Your task to perform on an android device: open sync settings in chrome Image 0: 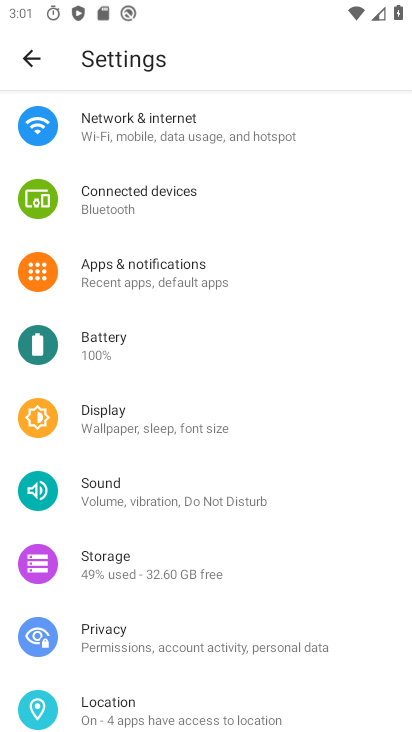
Step 0: press back button
Your task to perform on an android device: open sync settings in chrome Image 1: 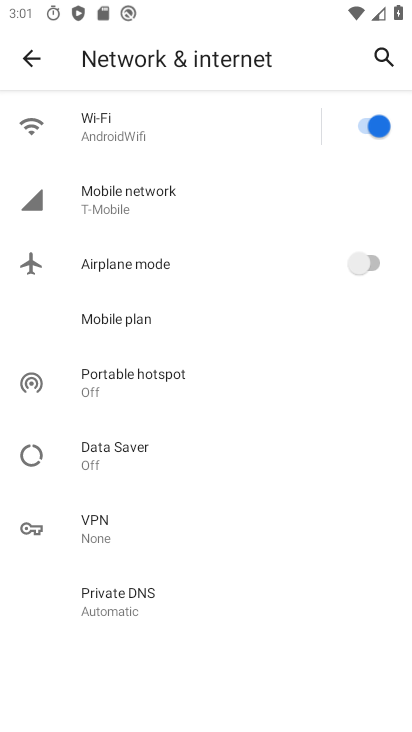
Step 1: press back button
Your task to perform on an android device: open sync settings in chrome Image 2: 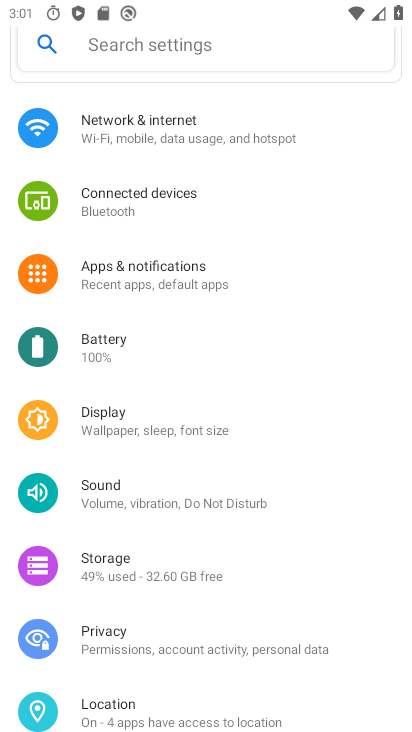
Step 2: press back button
Your task to perform on an android device: open sync settings in chrome Image 3: 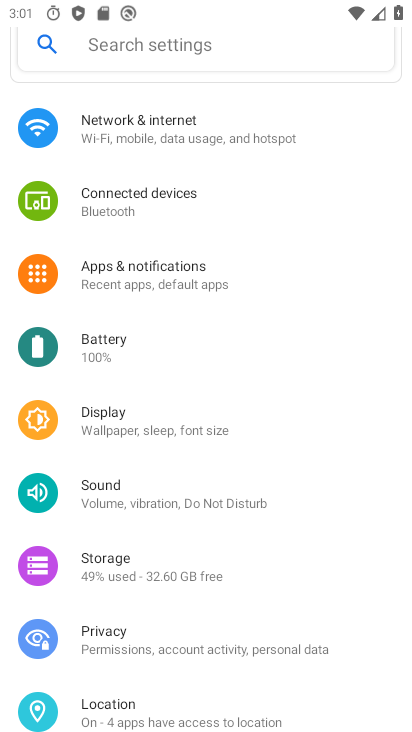
Step 3: press home button
Your task to perform on an android device: open sync settings in chrome Image 4: 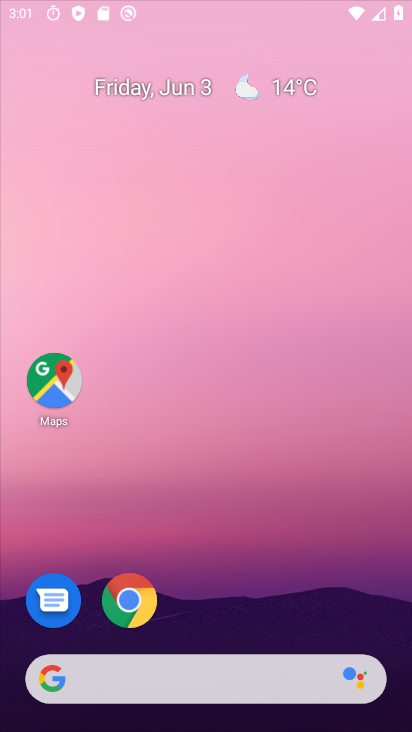
Step 4: press back button
Your task to perform on an android device: open sync settings in chrome Image 5: 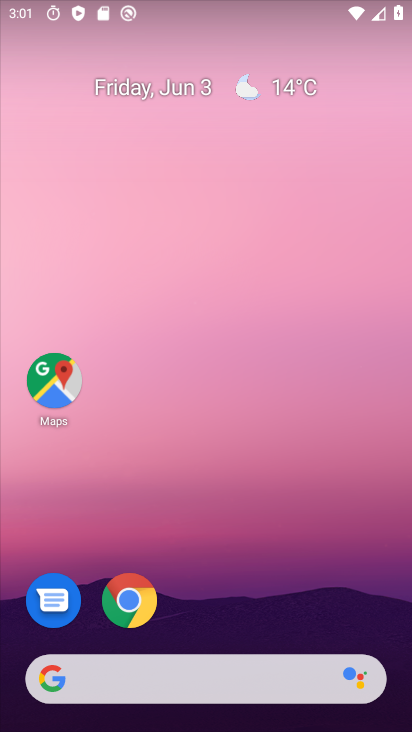
Step 5: press home button
Your task to perform on an android device: open sync settings in chrome Image 6: 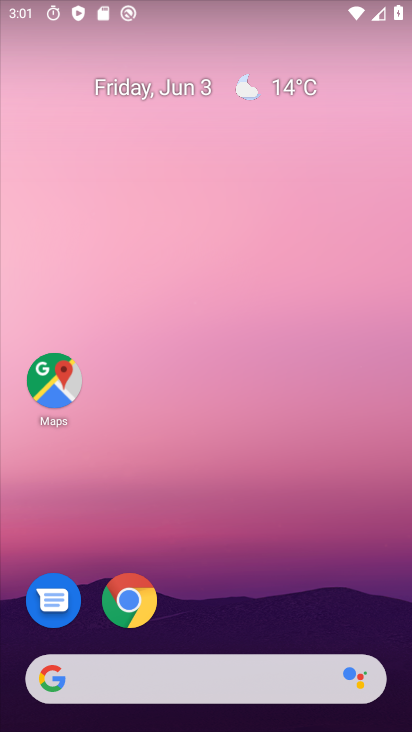
Step 6: drag from (276, 591) to (218, 2)
Your task to perform on an android device: open sync settings in chrome Image 7: 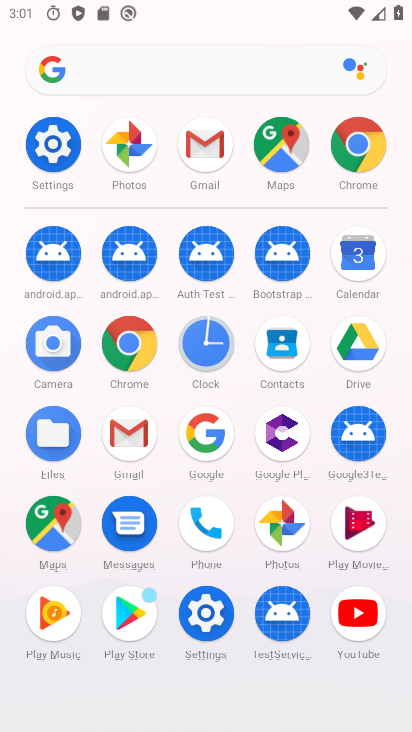
Step 7: click (130, 341)
Your task to perform on an android device: open sync settings in chrome Image 8: 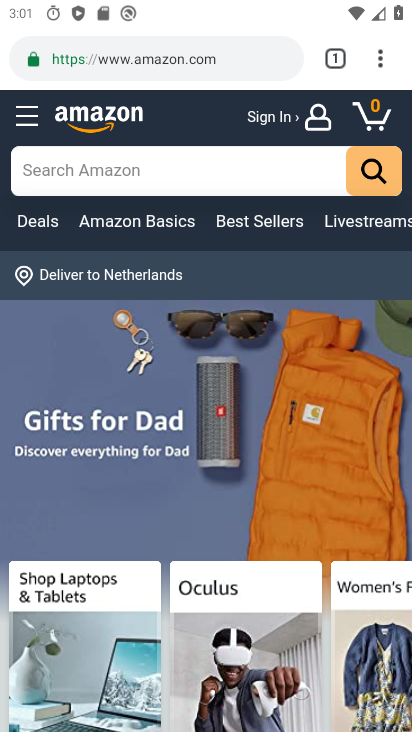
Step 8: click (380, 57)
Your task to perform on an android device: open sync settings in chrome Image 9: 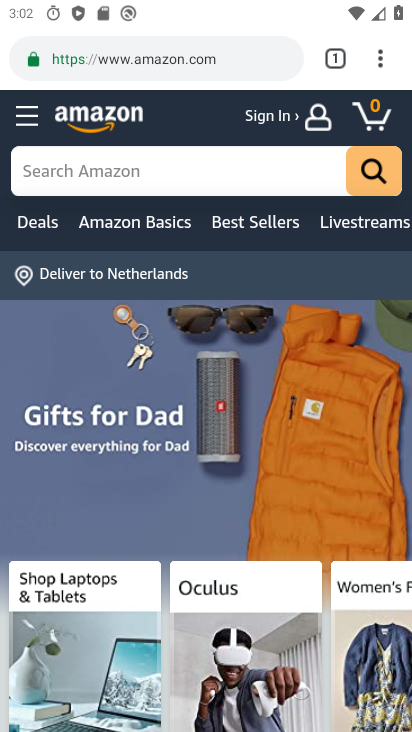
Step 9: drag from (377, 57) to (170, 632)
Your task to perform on an android device: open sync settings in chrome Image 10: 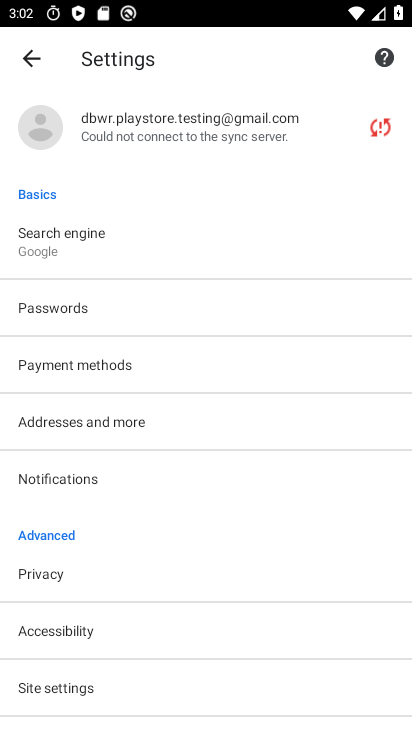
Step 10: click (146, 111)
Your task to perform on an android device: open sync settings in chrome Image 11: 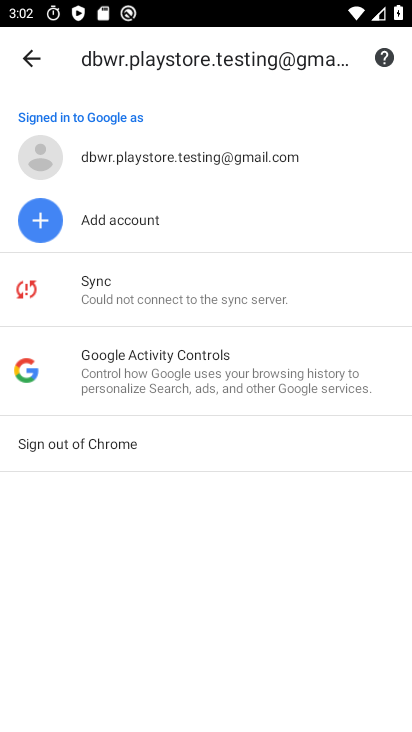
Step 11: click (144, 217)
Your task to perform on an android device: open sync settings in chrome Image 12: 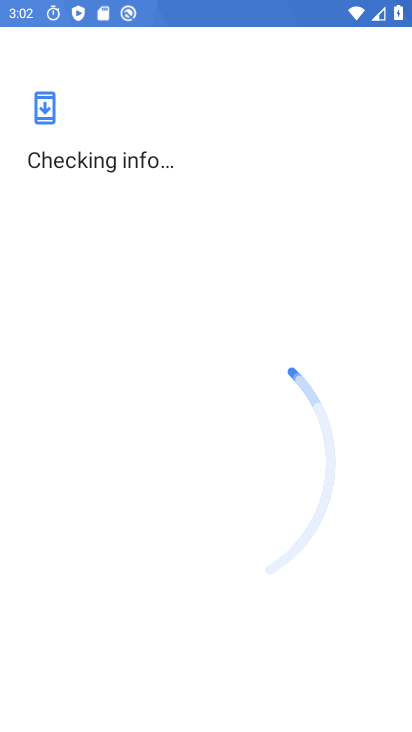
Step 12: press back button
Your task to perform on an android device: open sync settings in chrome Image 13: 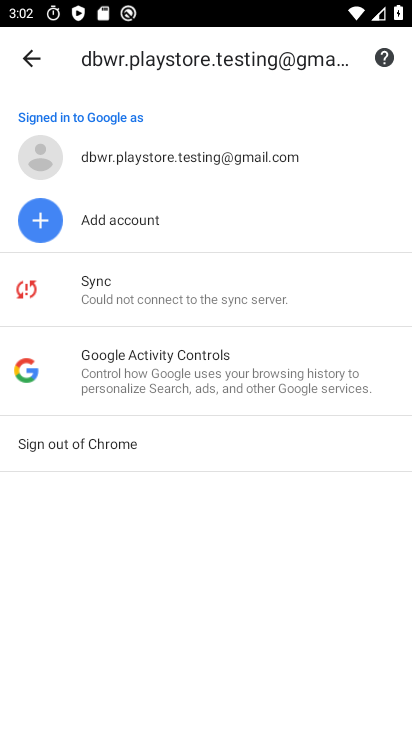
Step 13: press back button
Your task to perform on an android device: open sync settings in chrome Image 14: 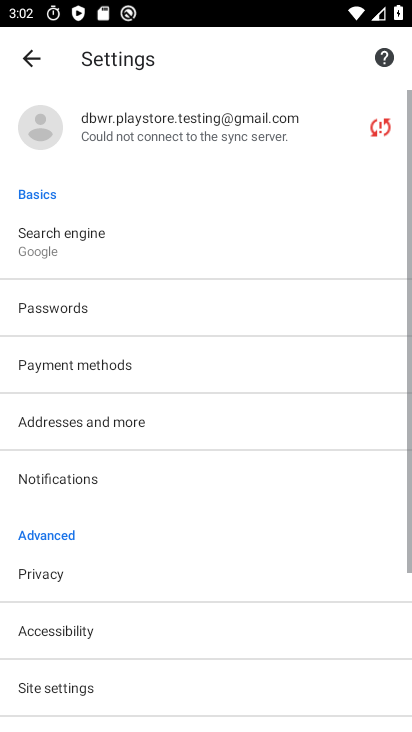
Step 14: press back button
Your task to perform on an android device: open sync settings in chrome Image 15: 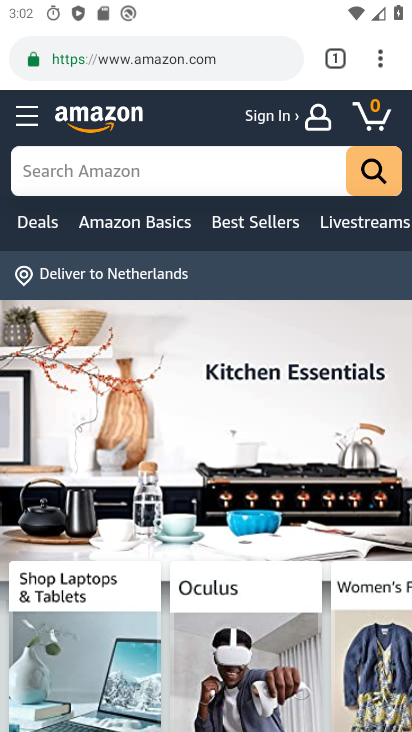
Step 15: click (170, 130)
Your task to perform on an android device: open sync settings in chrome Image 16: 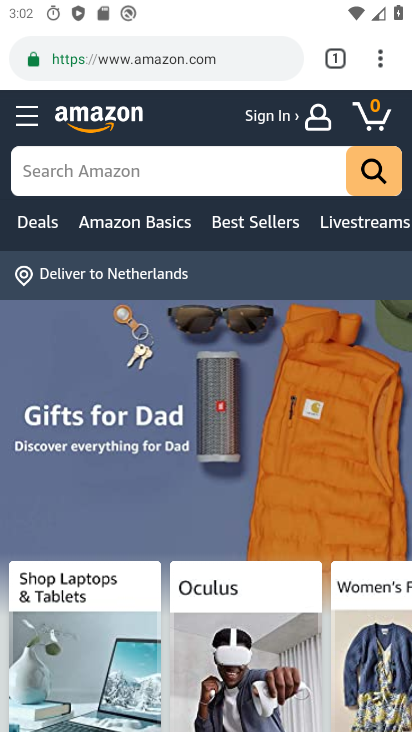
Step 16: drag from (377, 63) to (198, 628)
Your task to perform on an android device: open sync settings in chrome Image 17: 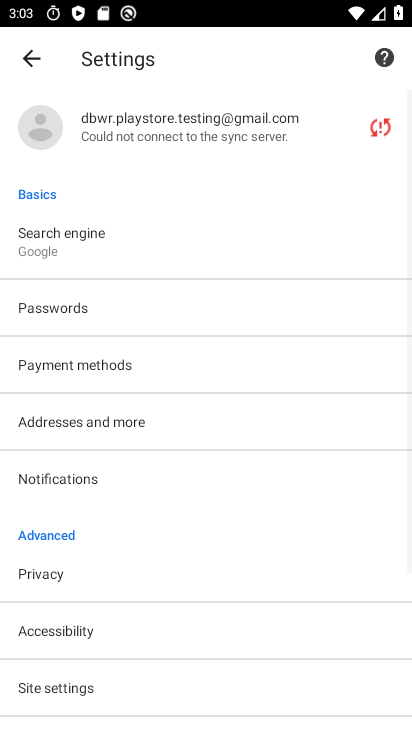
Step 17: click (149, 132)
Your task to perform on an android device: open sync settings in chrome Image 18: 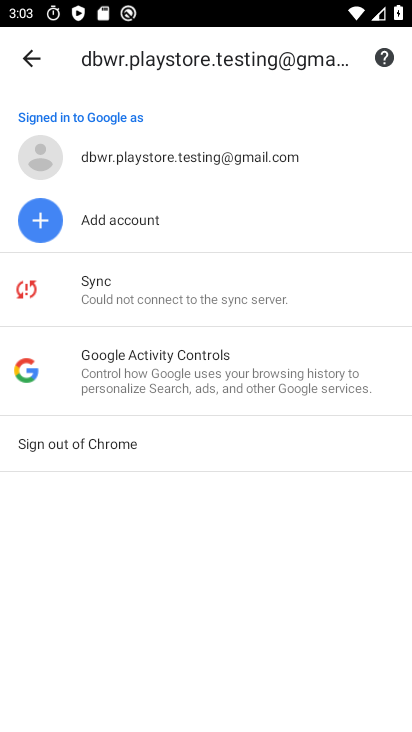
Step 18: click (129, 282)
Your task to perform on an android device: open sync settings in chrome Image 19: 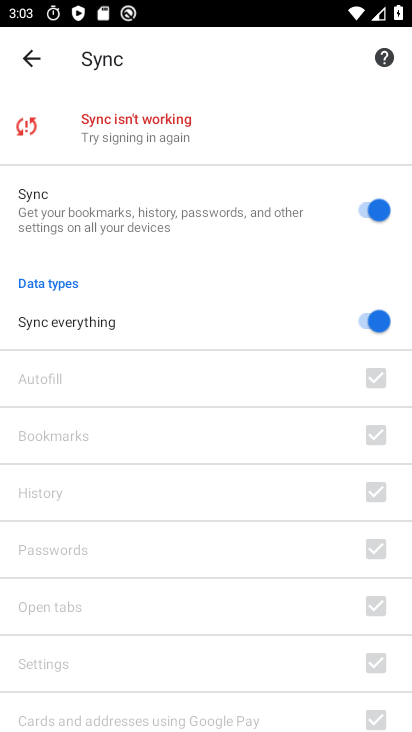
Step 19: task complete